Your task to perform on an android device: Go to Yahoo.com Image 0: 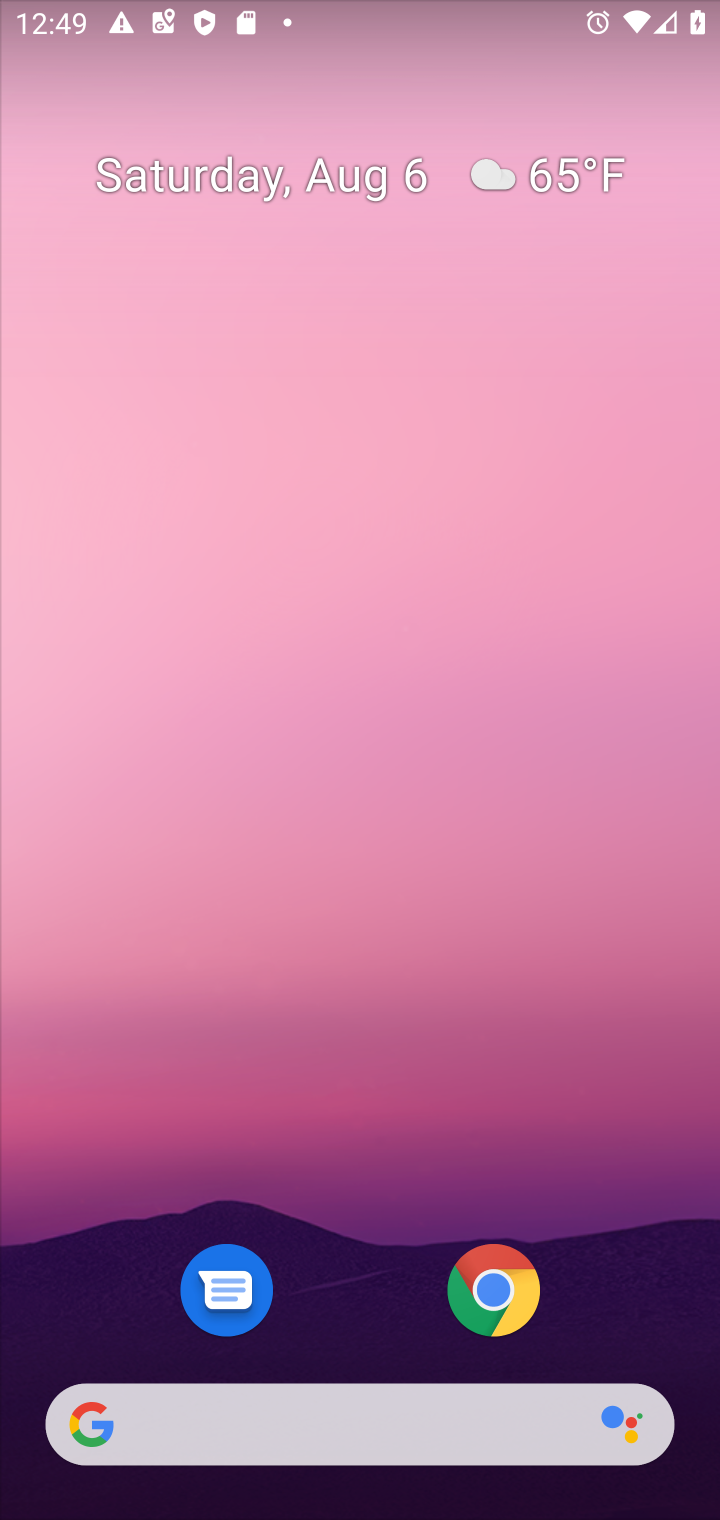
Step 0: press home button
Your task to perform on an android device: Go to Yahoo.com Image 1: 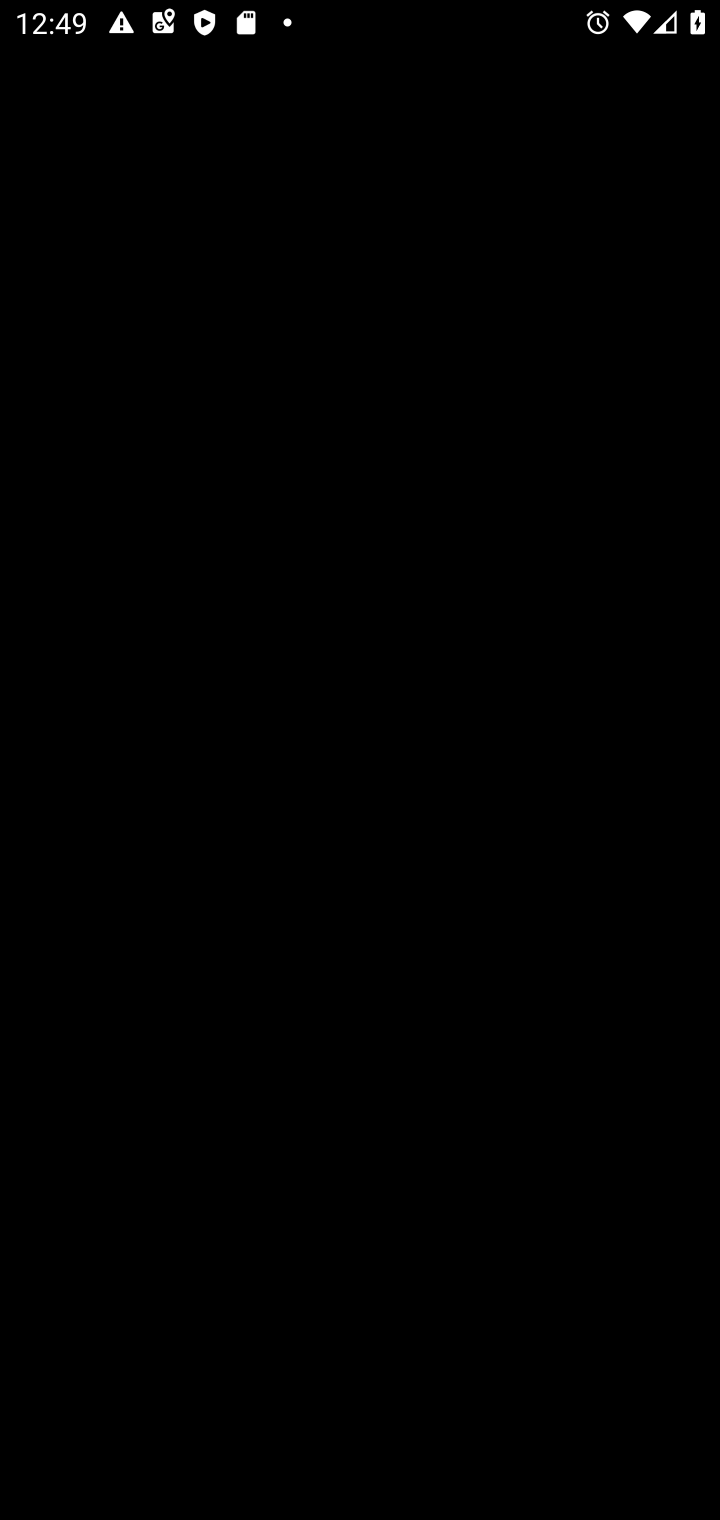
Step 1: press home button
Your task to perform on an android device: Go to Yahoo.com Image 2: 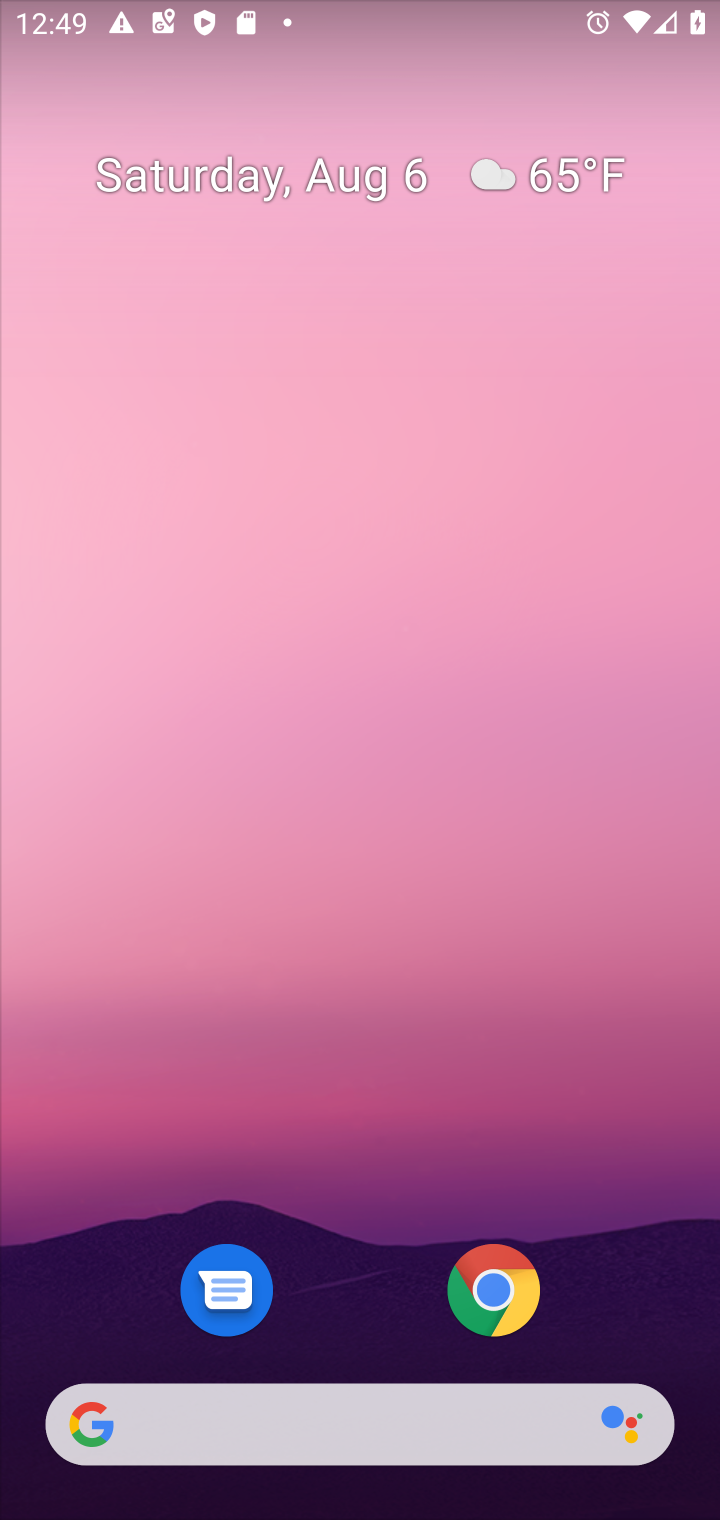
Step 2: click (492, 1284)
Your task to perform on an android device: Go to Yahoo.com Image 3: 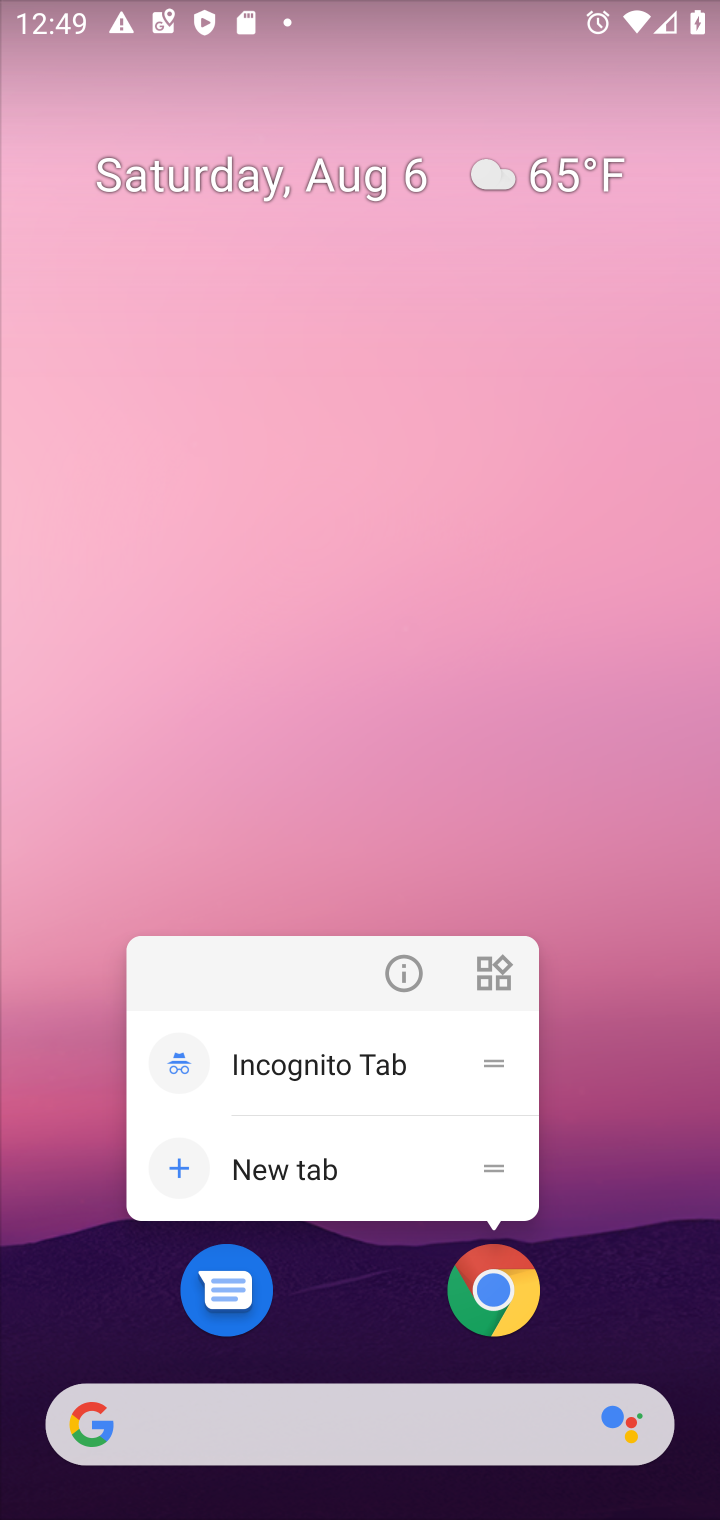
Step 3: click (492, 1284)
Your task to perform on an android device: Go to Yahoo.com Image 4: 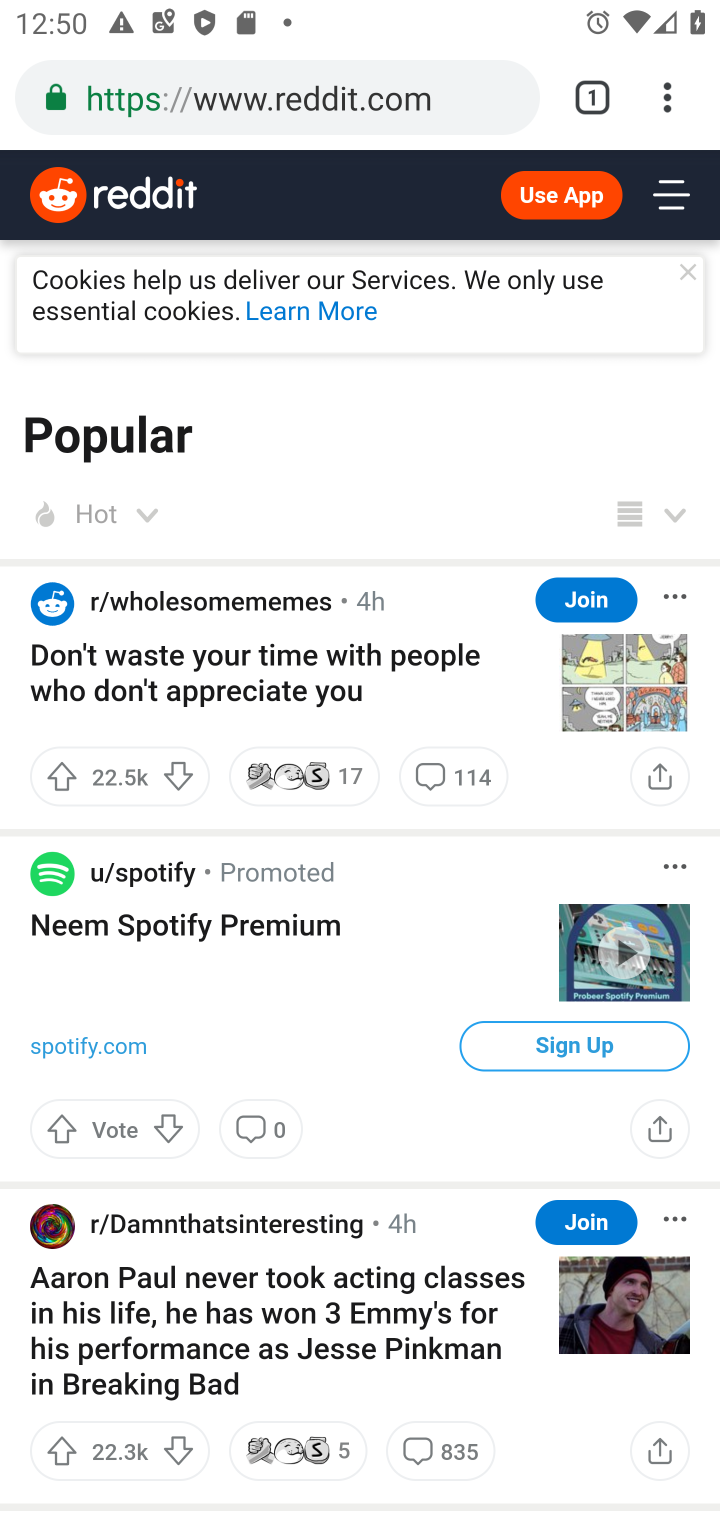
Step 4: click (584, 96)
Your task to perform on an android device: Go to Yahoo.com Image 5: 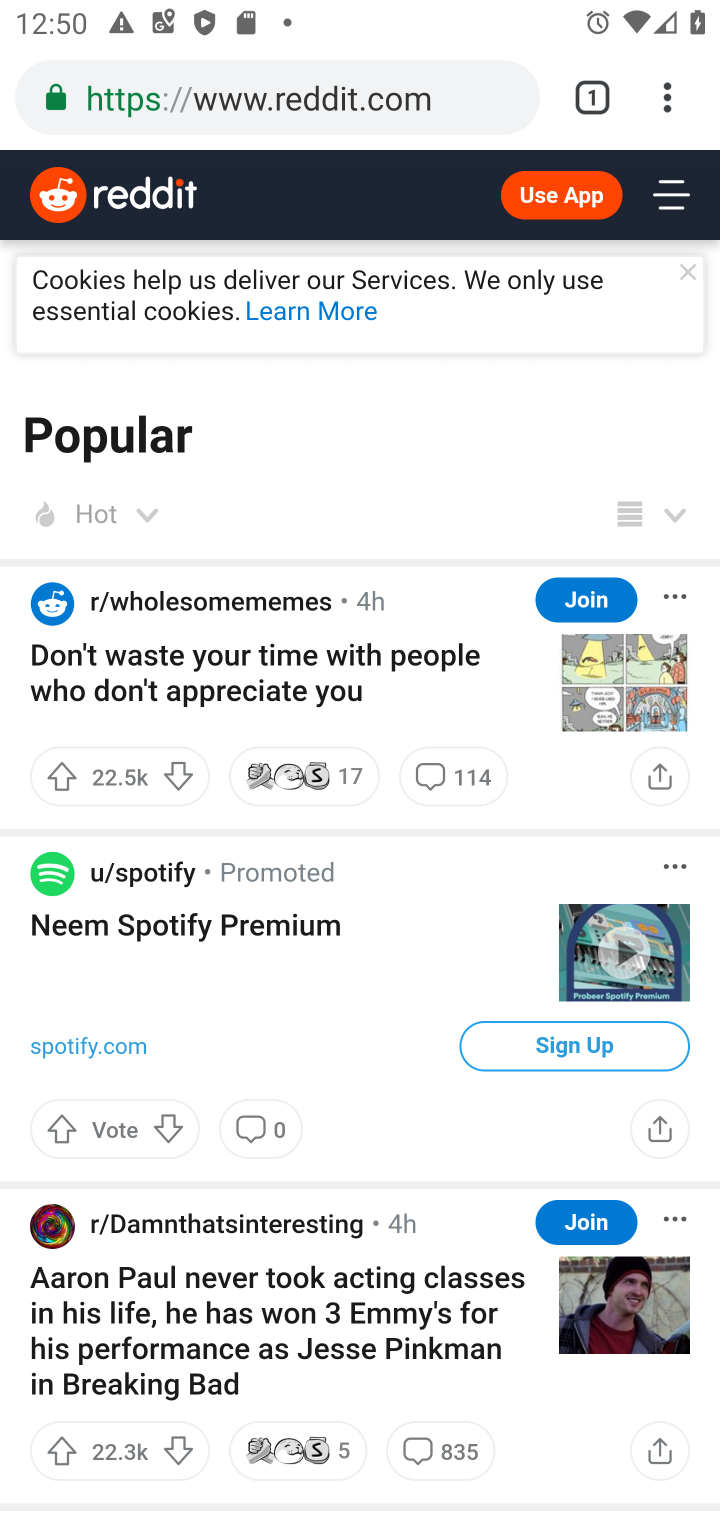
Step 5: click (587, 82)
Your task to perform on an android device: Go to Yahoo.com Image 6: 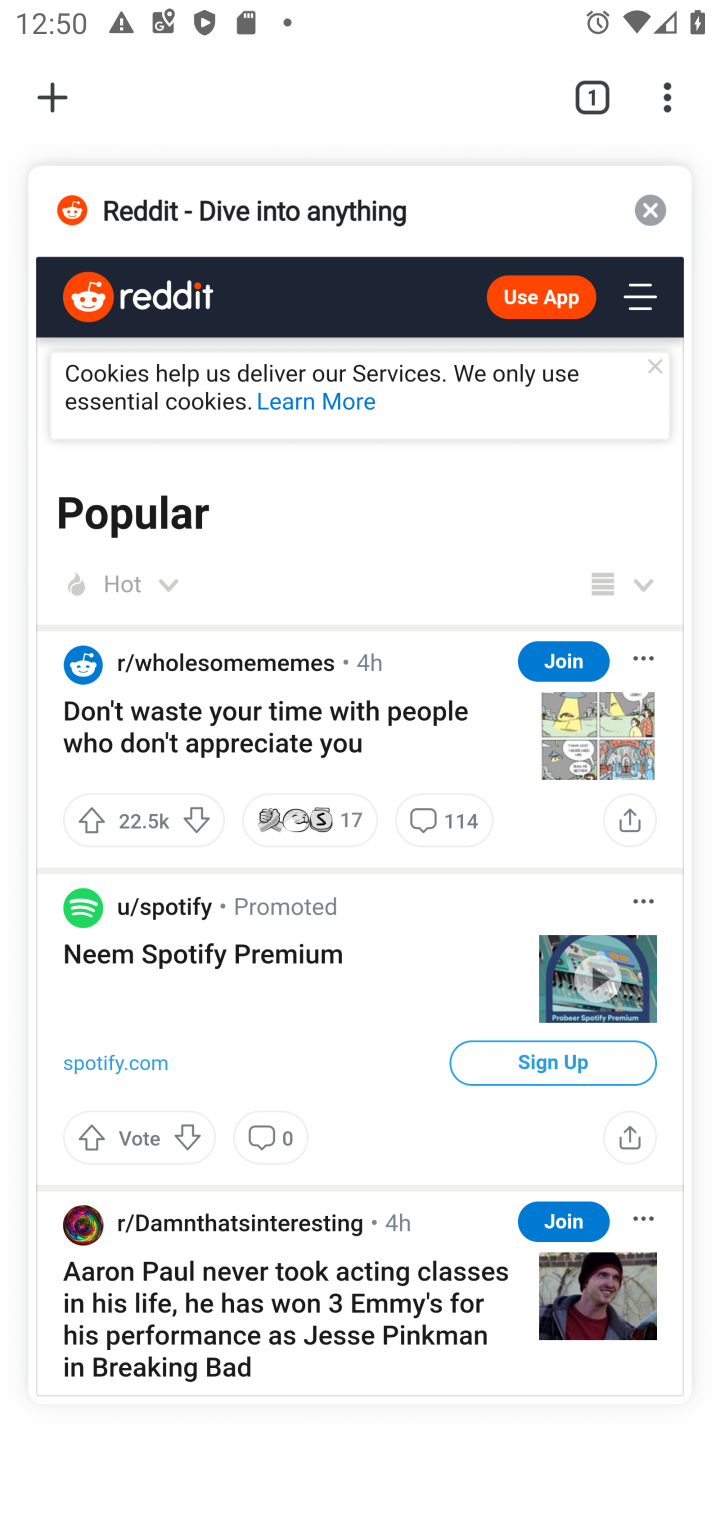
Step 6: click (59, 95)
Your task to perform on an android device: Go to Yahoo.com Image 7: 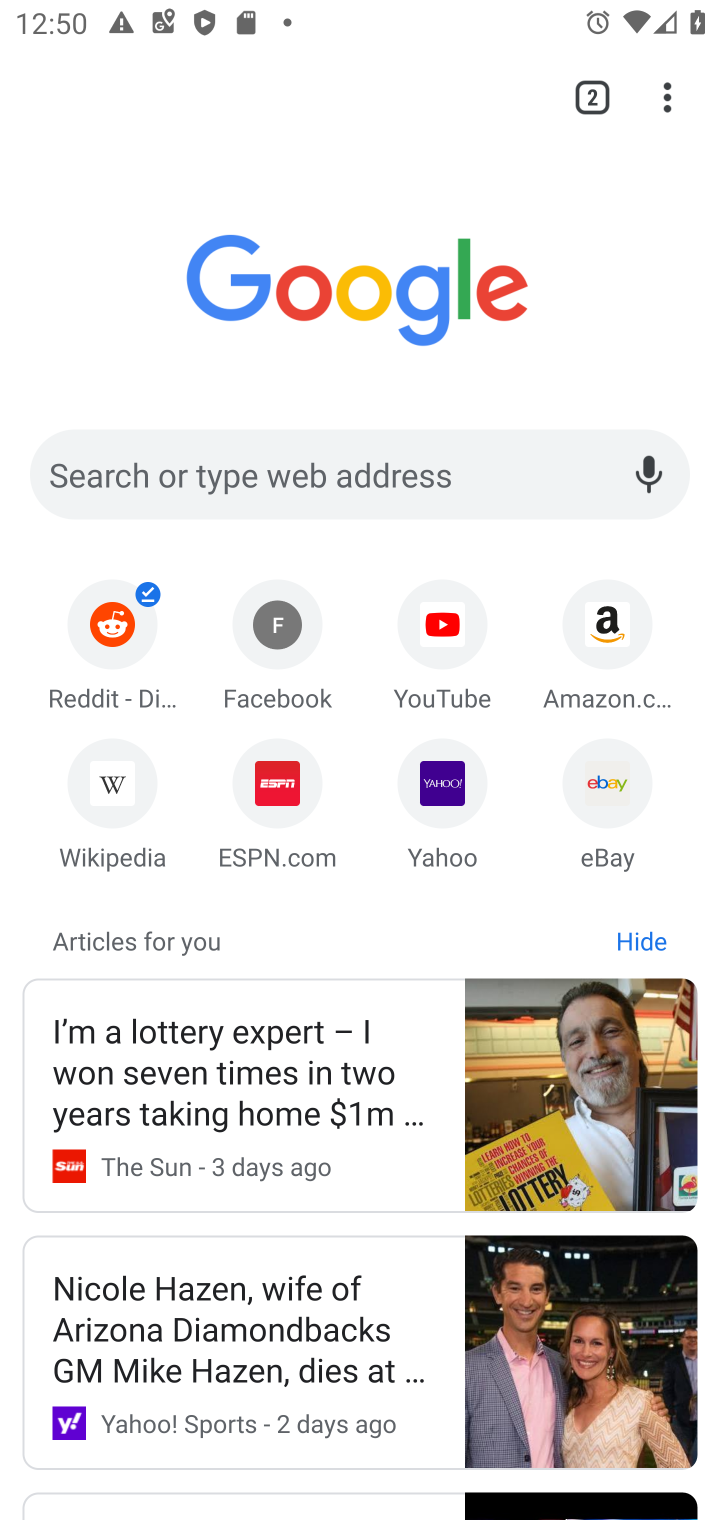
Step 7: click (438, 774)
Your task to perform on an android device: Go to Yahoo.com Image 8: 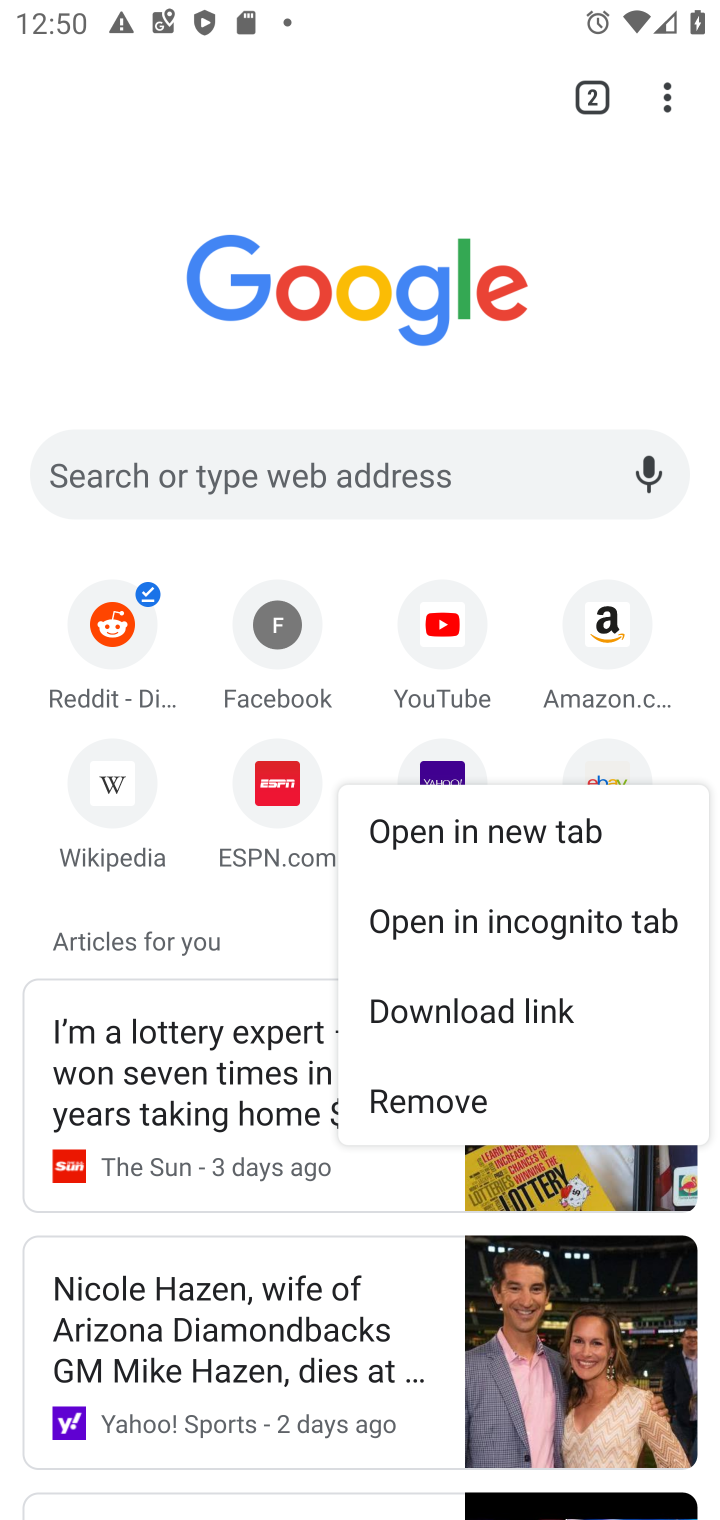
Step 8: click (438, 774)
Your task to perform on an android device: Go to Yahoo.com Image 9: 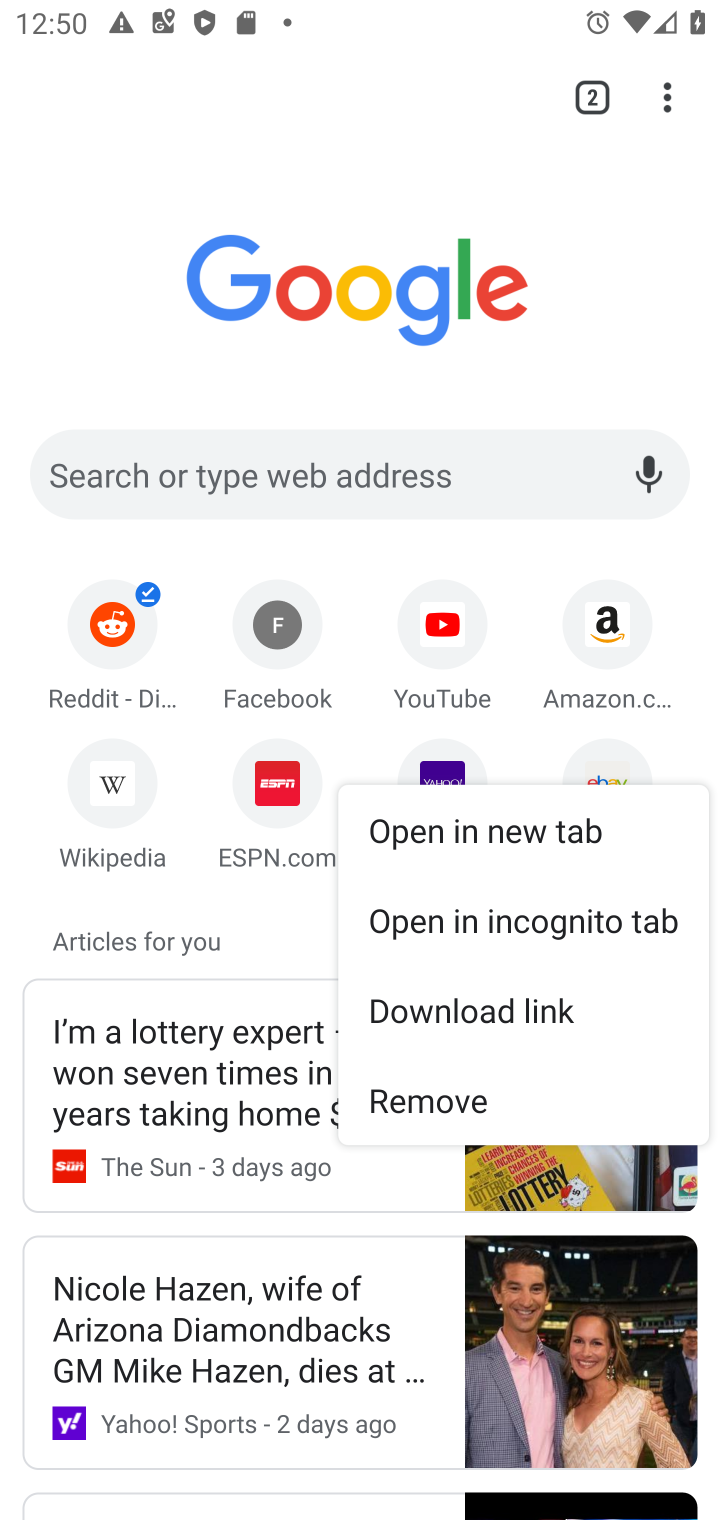
Step 9: click (58, 233)
Your task to perform on an android device: Go to Yahoo.com Image 10: 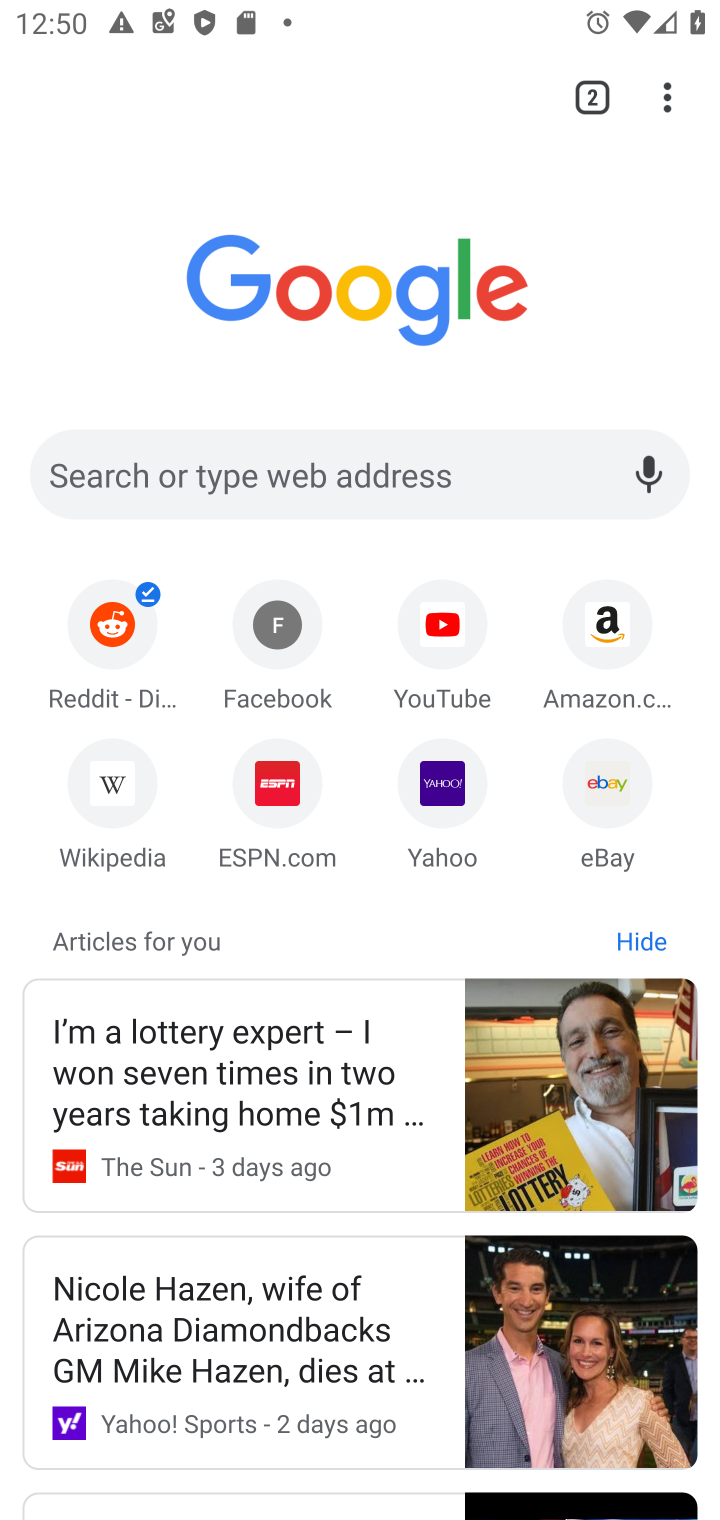
Step 10: click (442, 792)
Your task to perform on an android device: Go to Yahoo.com Image 11: 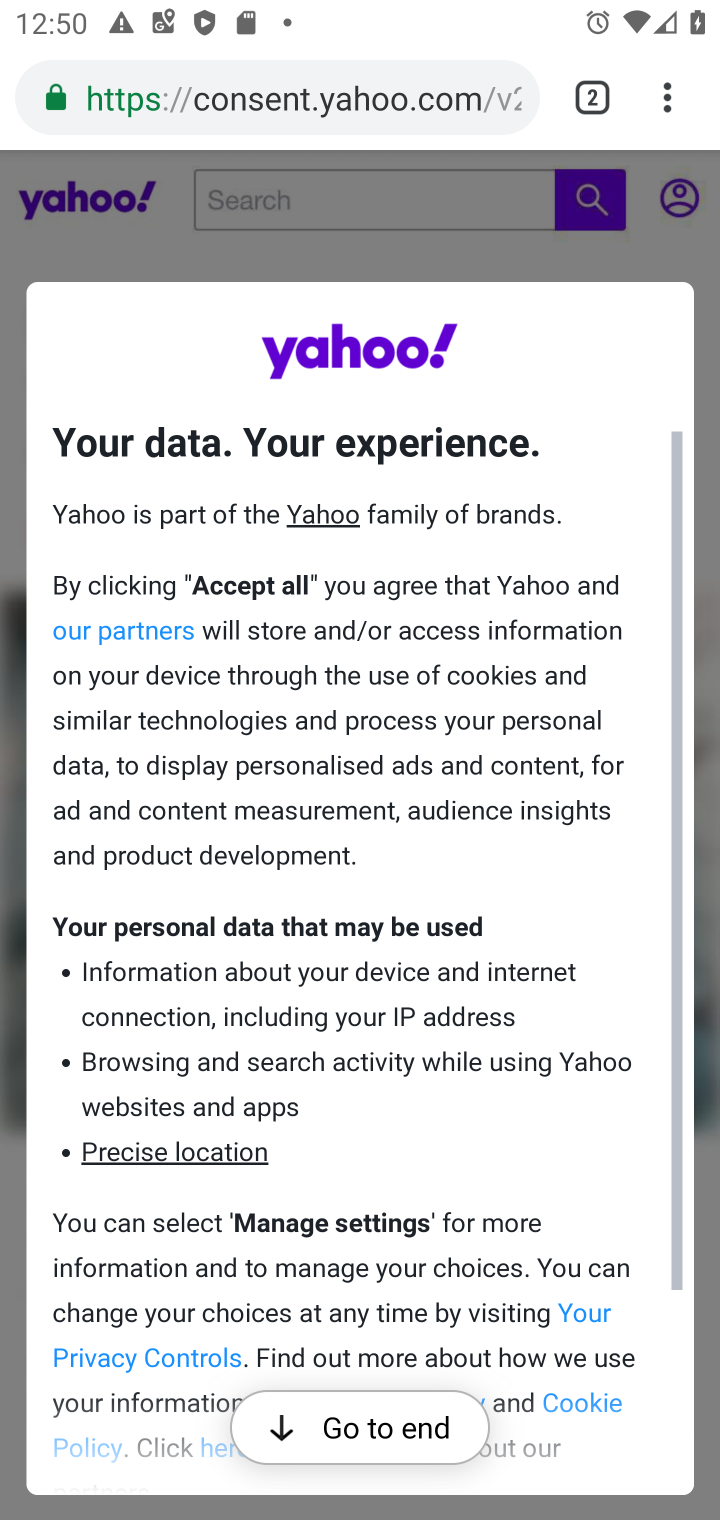
Step 11: click (328, 1426)
Your task to perform on an android device: Go to Yahoo.com Image 12: 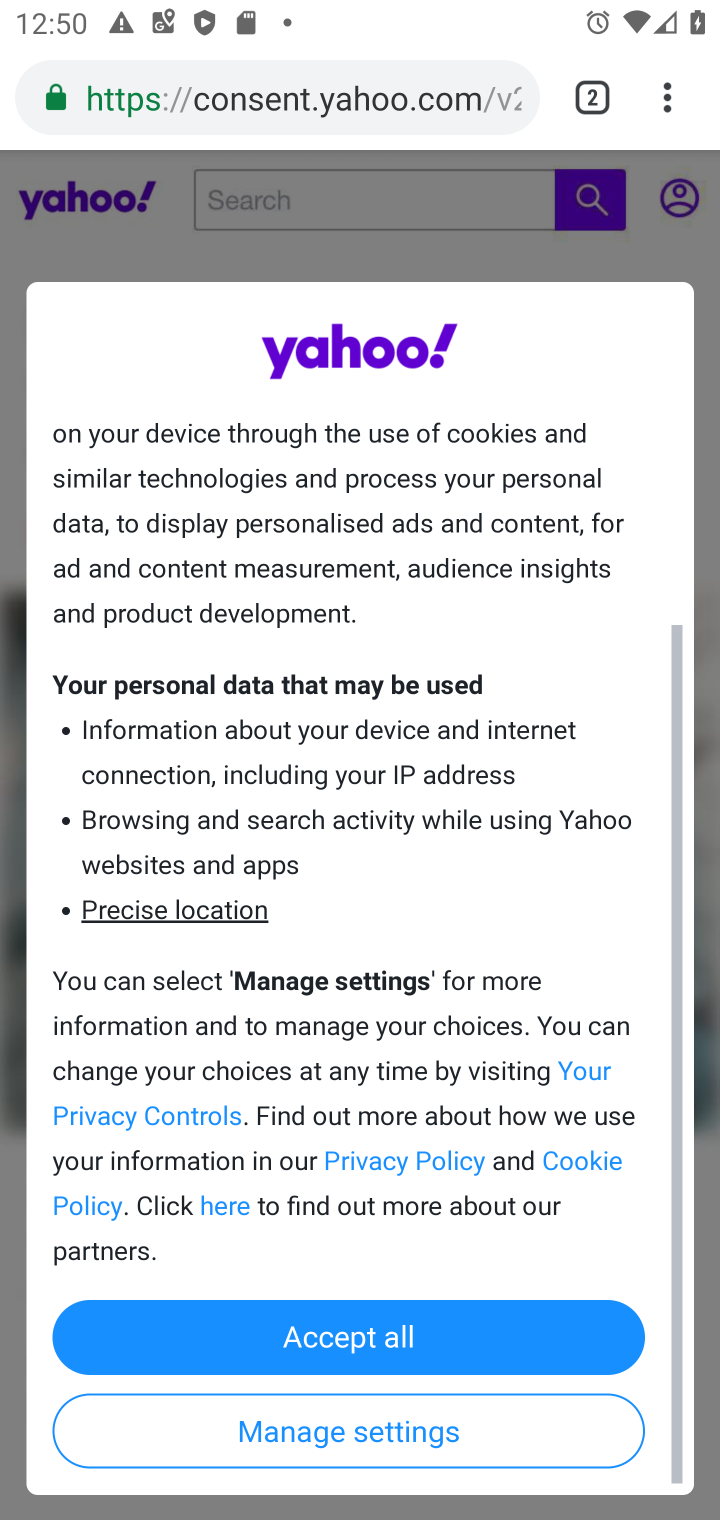
Step 12: click (358, 1332)
Your task to perform on an android device: Go to Yahoo.com Image 13: 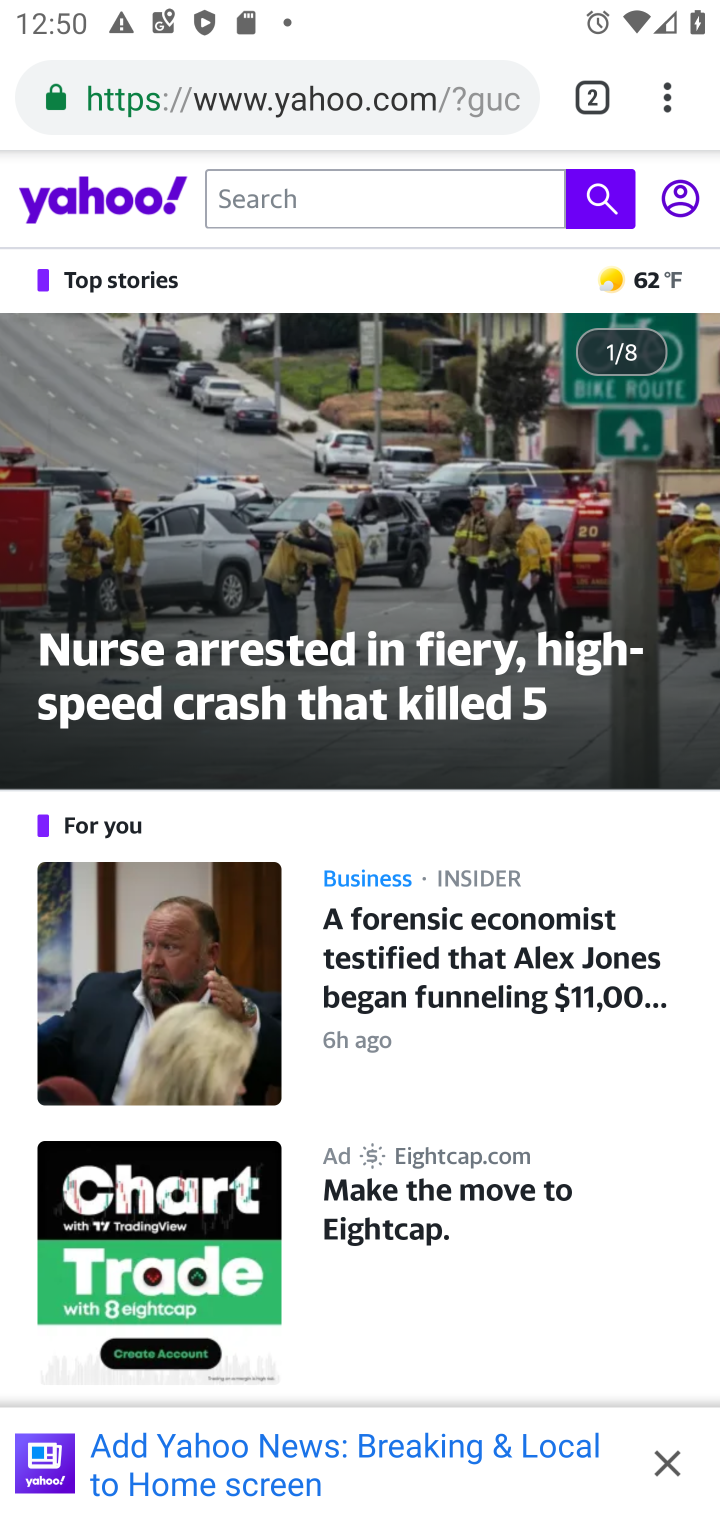
Step 13: task complete